Your task to perform on an android device: check data usage Image 0: 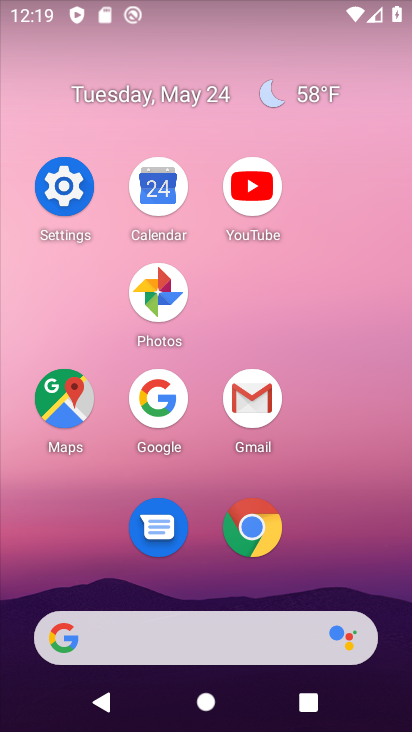
Step 0: click (45, 185)
Your task to perform on an android device: check data usage Image 1: 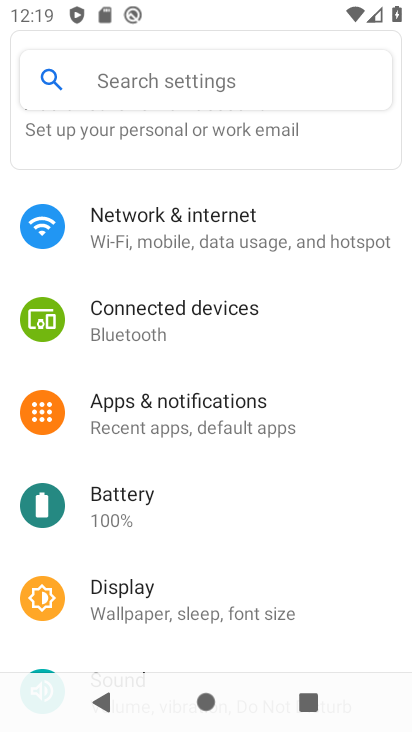
Step 1: click (283, 214)
Your task to perform on an android device: check data usage Image 2: 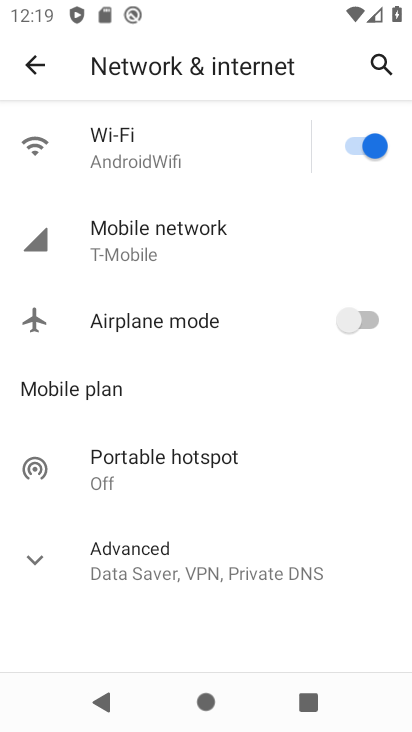
Step 2: click (248, 240)
Your task to perform on an android device: check data usage Image 3: 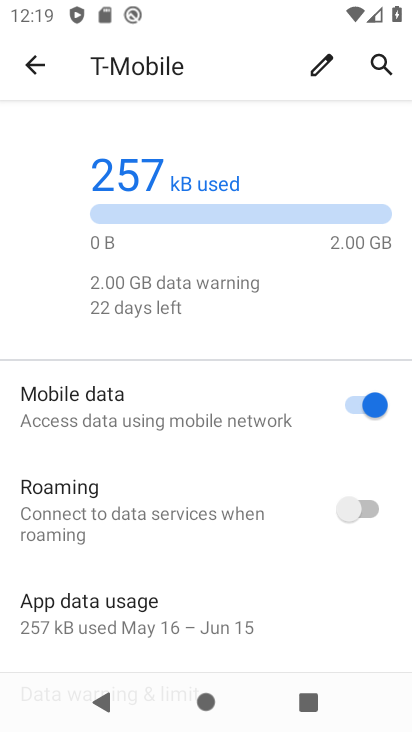
Step 3: click (211, 645)
Your task to perform on an android device: check data usage Image 4: 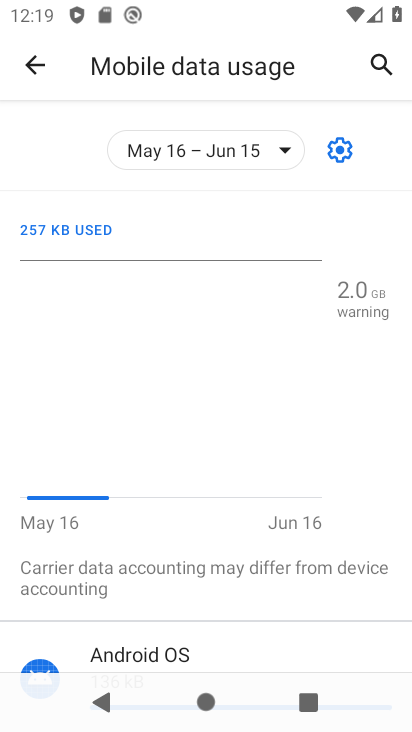
Step 4: task complete